Your task to perform on an android device: Go to Reddit.com Image 0: 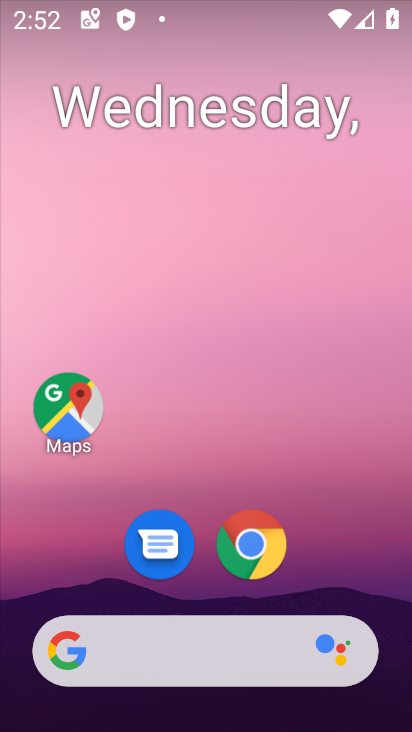
Step 0: drag from (350, 555) to (310, 195)
Your task to perform on an android device: Go to Reddit.com Image 1: 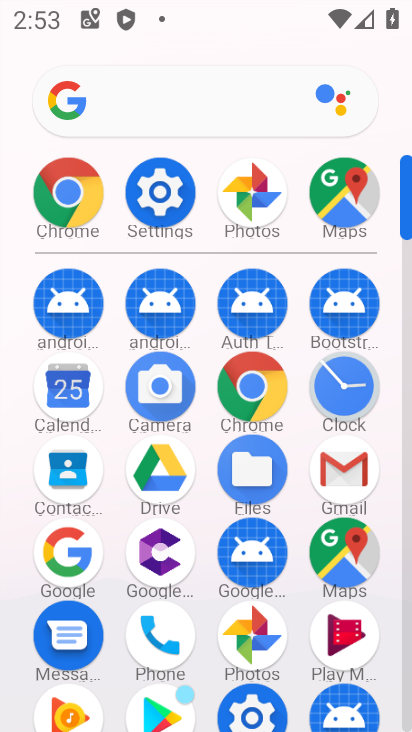
Step 1: click (236, 402)
Your task to perform on an android device: Go to Reddit.com Image 2: 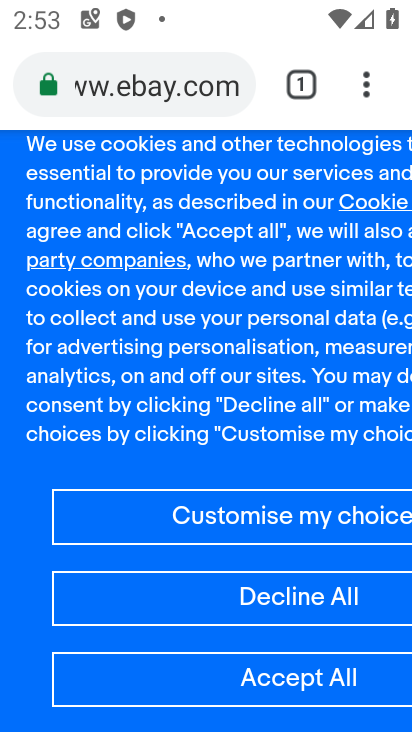
Step 2: click (159, 87)
Your task to perform on an android device: Go to Reddit.com Image 3: 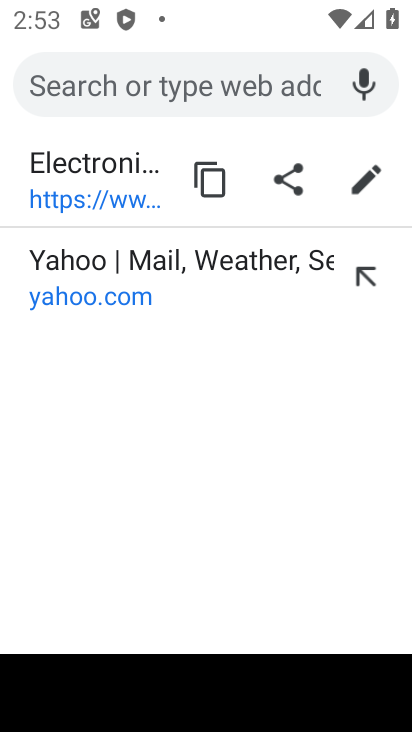
Step 3: type "reddit.com"
Your task to perform on an android device: Go to Reddit.com Image 4: 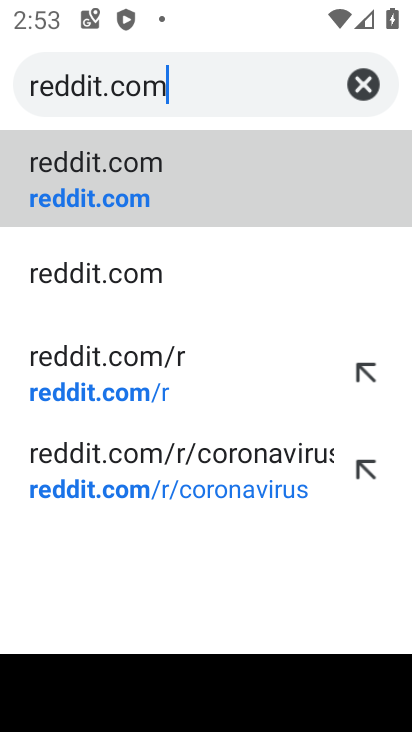
Step 4: click (123, 158)
Your task to perform on an android device: Go to Reddit.com Image 5: 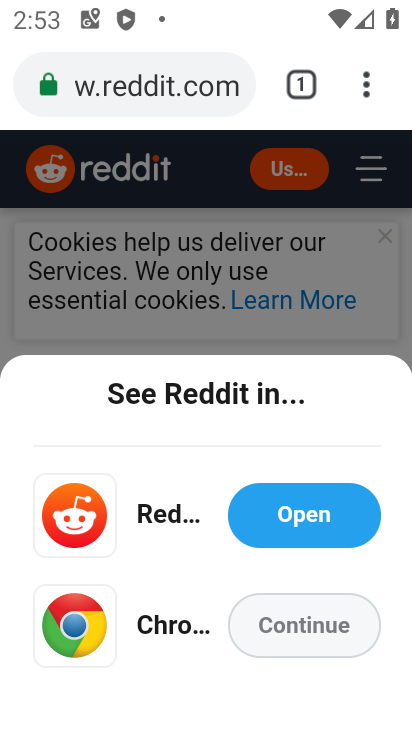
Step 5: task complete